Your task to perform on an android device: Go to notification settings Image 0: 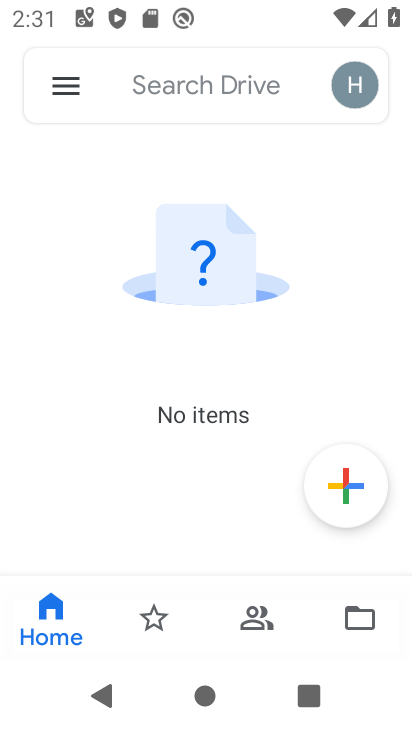
Step 0: press home button
Your task to perform on an android device: Go to notification settings Image 1: 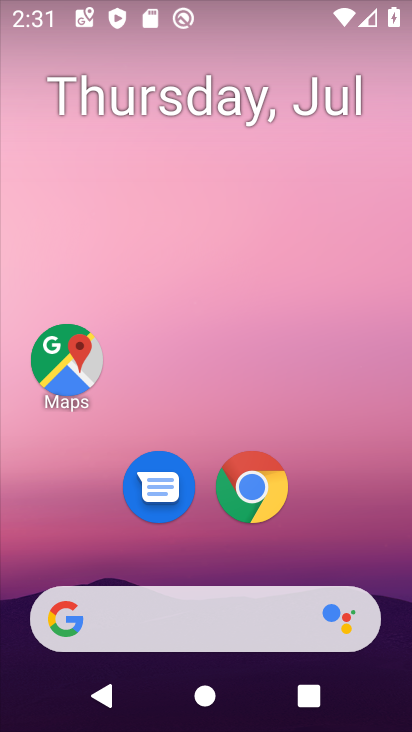
Step 1: drag from (365, 562) to (342, 227)
Your task to perform on an android device: Go to notification settings Image 2: 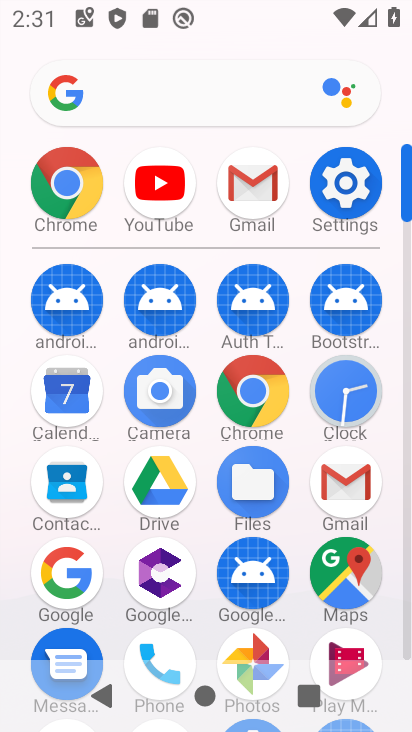
Step 2: click (347, 198)
Your task to perform on an android device: Go to notification settings Image 3: 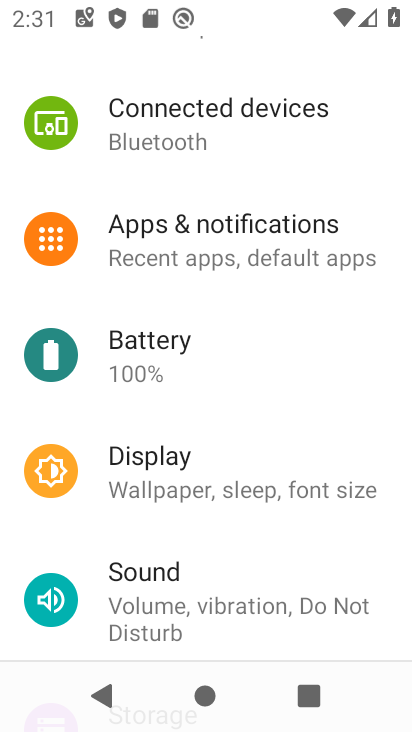
Step 3: drag from (348, 200) to (367, 328)
Your task to perform on an android device: Go to notification settings Image 4: 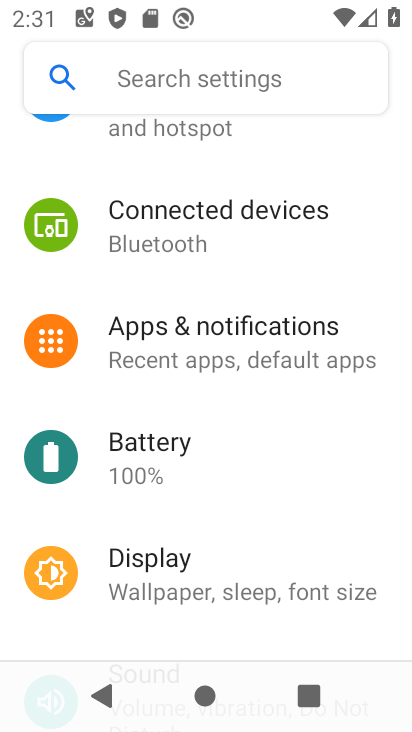
Step 4: drag from (363, 194) to (370, 297)
Your task to perform on an android device: Go to notification settings Image 5: 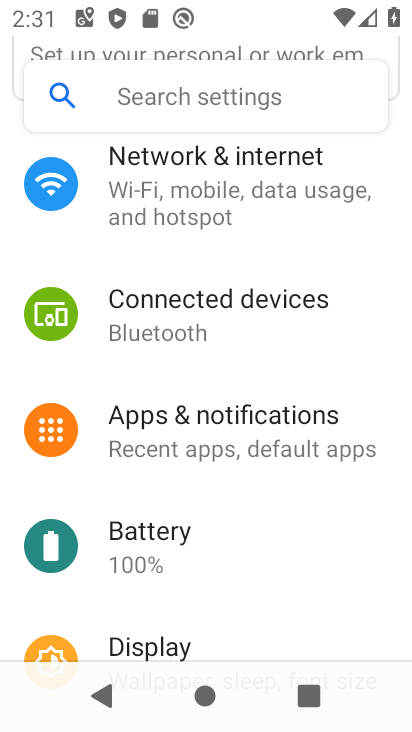
Step 5: drag from (380, 196) to (384, 353)
Your task to perform on an android device: Go to notification settings Image 6: 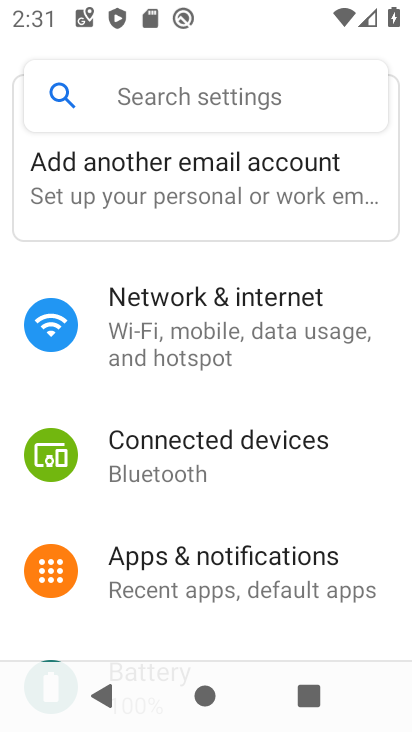
Step 6: drag from (367, 433) to (363, 354)
Your task to perform on an android device: Go to notification settings Image 7: 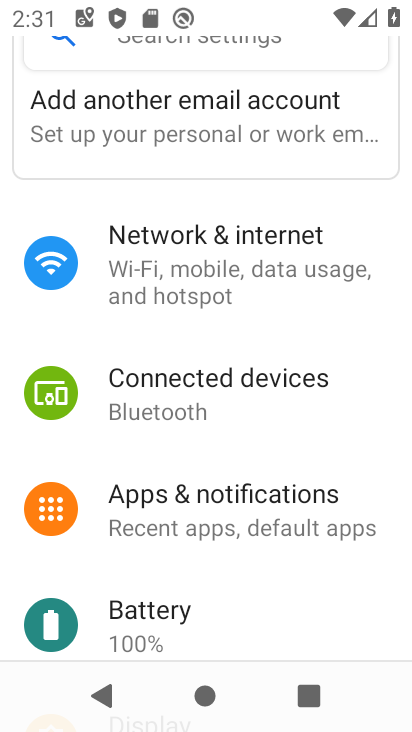
Step 7: drag from (367, 432) to (366, 358)
Your task to perform on an android device: Go to notification settings Image 8: 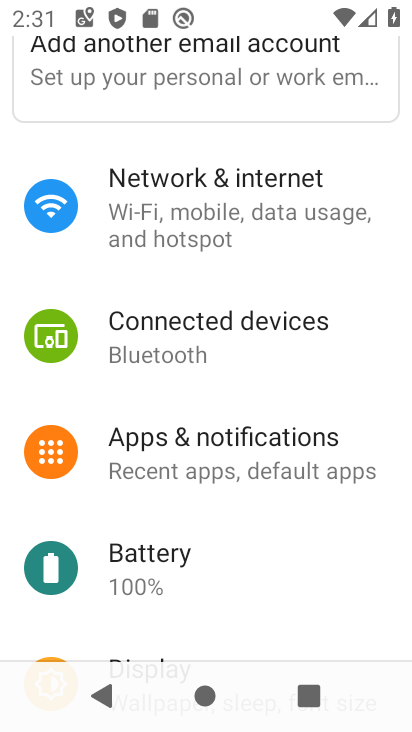
Step 8: drag from (362, 425) to (362, 327)
Your task to perform on an android device: Go to notification settings Image 9: 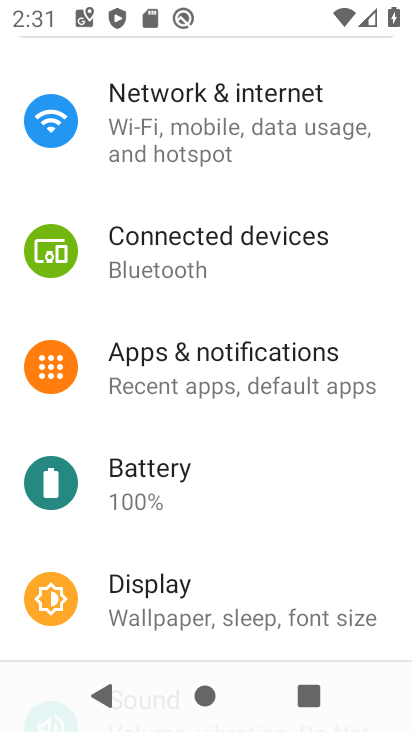
Step 9: drag from (350, 443) to (351, 345)
Your task to perform on an android device: Go to notification settings Image 10: 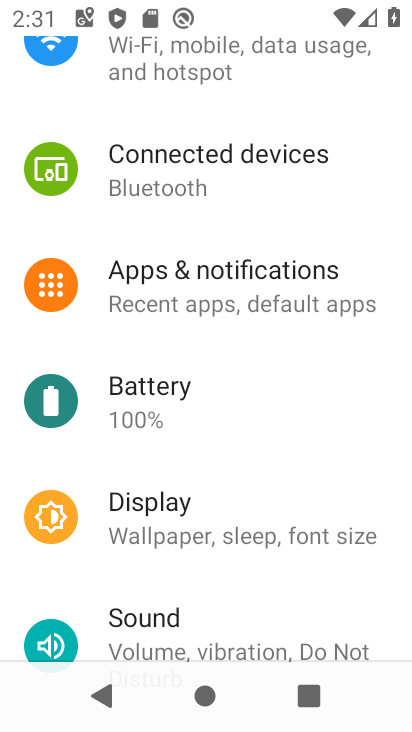
Step 10: click (302, 291)
Your task to perform on an android device: Go to notification settings Image 11: 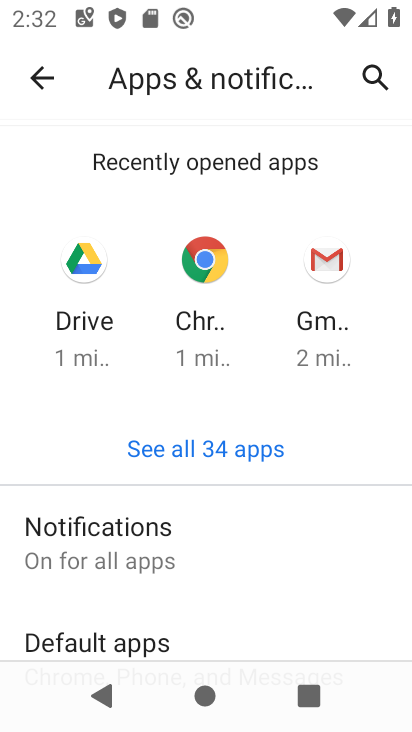
Step 11: drag from (369, 501) to (368, 398)
Your task to perform on an android device: Go to notification settings Image 12: 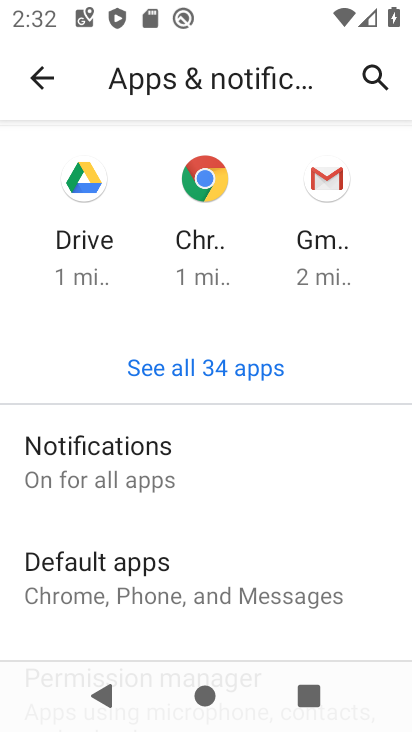
Step 12: click (142, 471)
Your task to perform on an android device: Go to notification settings Image 13: 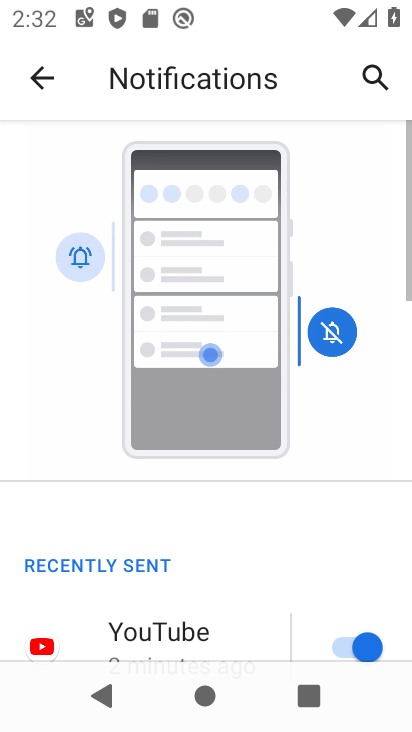
Step 13: task complete